Your task to perform on an android device: Open CNN.com Image 0: 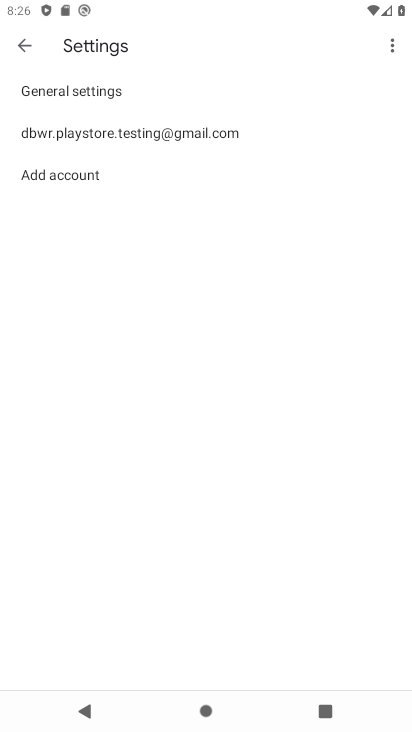
Step 0: press home button
Your task to perform on an android device: Open CNN.com Image 1: 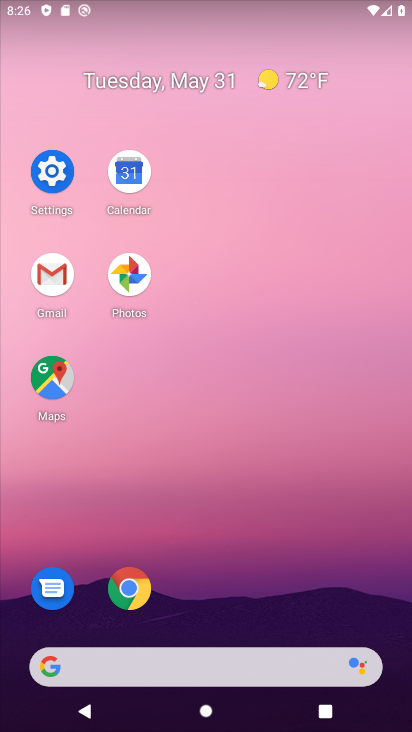
Step 1: click (152, 588)
Your task to perform on an android device: Open CNN.com Image 2: 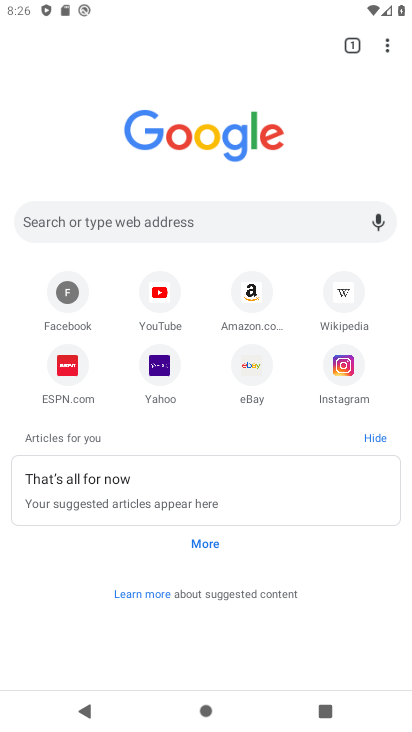
Step 2: click (146, 209)
Your task to perform on an android device: Open CNN.com Image 3: 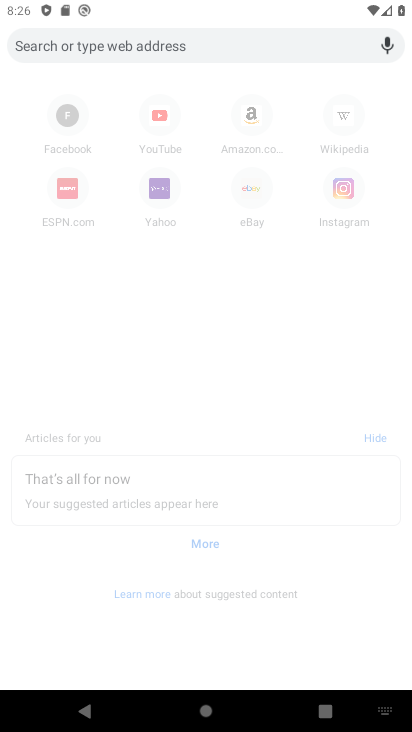
Step 3: type "cnn"
Your task to perform on an android device: Open CNN.com Image 4: 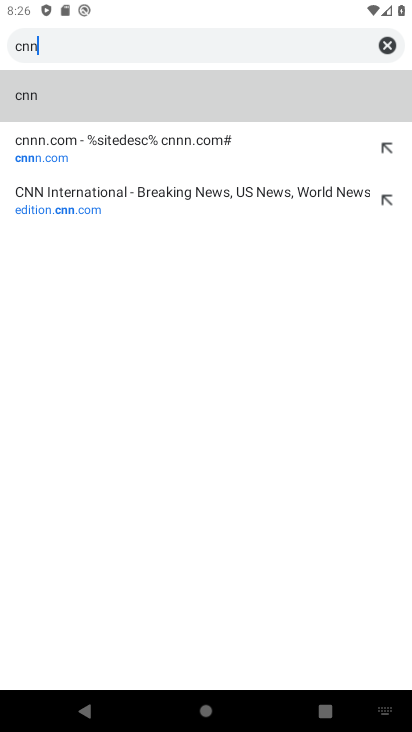
Step 4: click (82, 162)
Your task to perform on an android device: Open CNN.com Image 5: 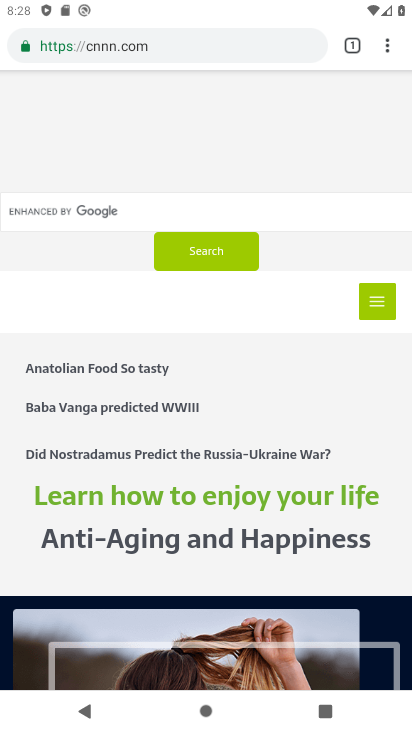
Step 5: task complete